Your task to perform on an android device: Turn on the flashlight Image 0: 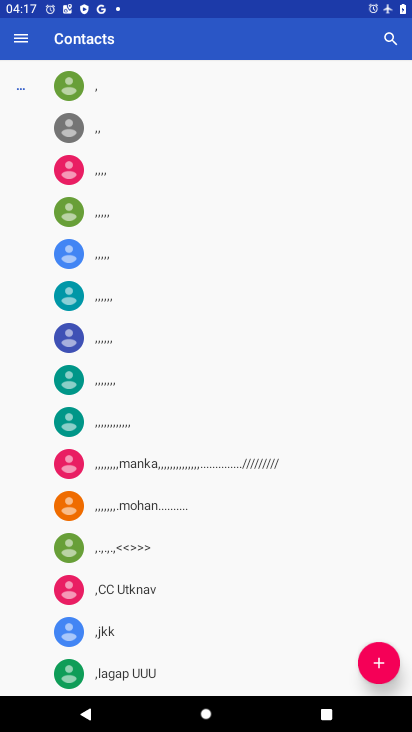
Step 0: press home button
Your task to perform on an android device: Turn on the flashlight Image 1: 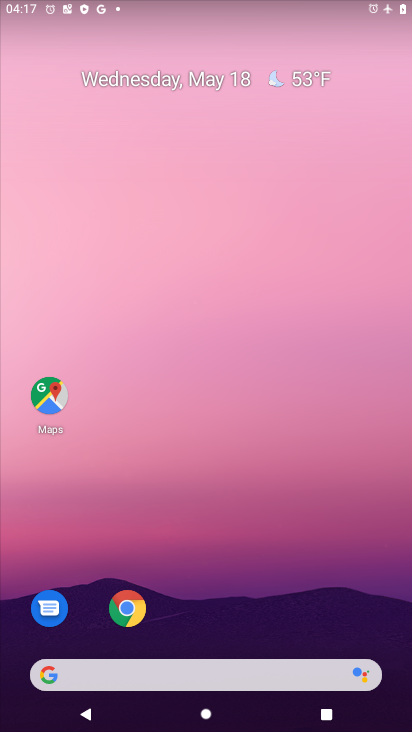
Step 1: task complete